Your task to perform on an android device: change text size in settings app Image 0: 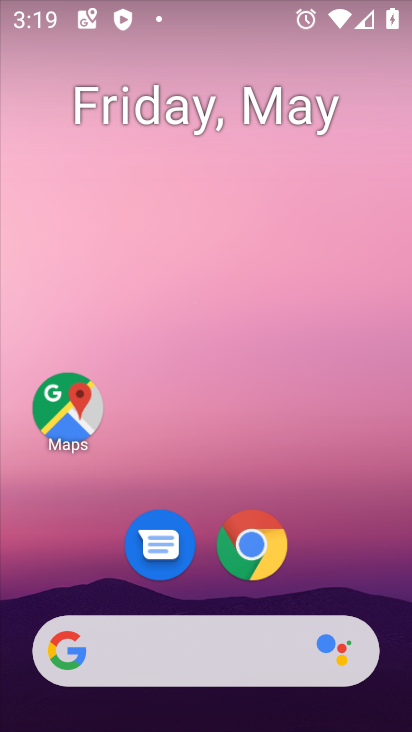
Step 0: drag from (320, 537) to (299, 18)
Your task to perform on an android device: change text size in settings app Image 1: 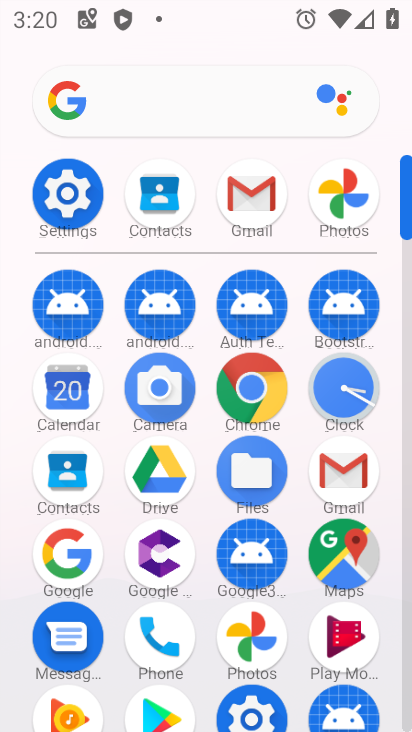
Step 1: click (68, 217)
Your task to perform on an android device: change text size in settings app Image 2: 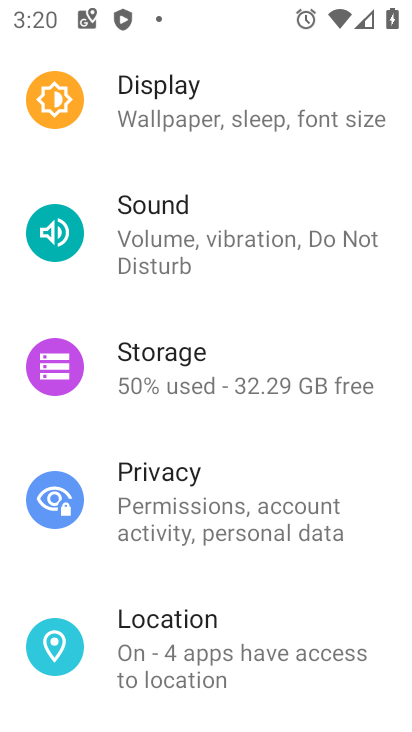
Step 2: click (268, 117)
Your task to perform on an android device: change text size in settings app Image 3: 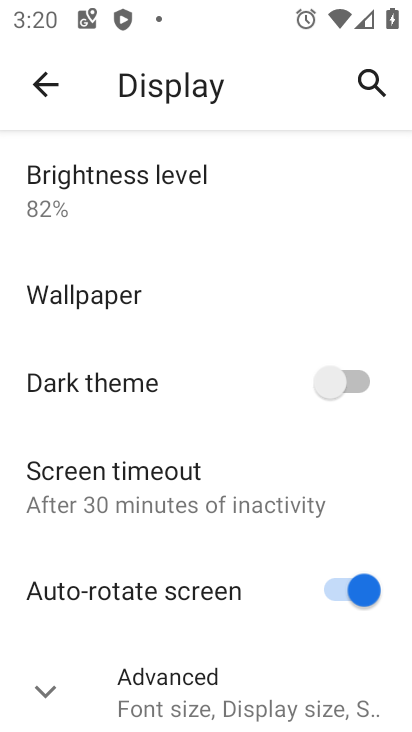
Step 3: click (221, 701)
Your task to perform on an android device: change text size in settings app Image 4: 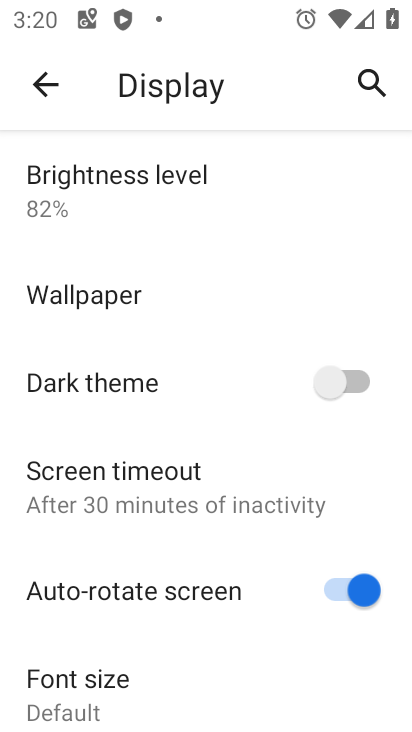
Step 4: click (92, 675)
Your task to perform on an android device: change text size in settings app Image 5: 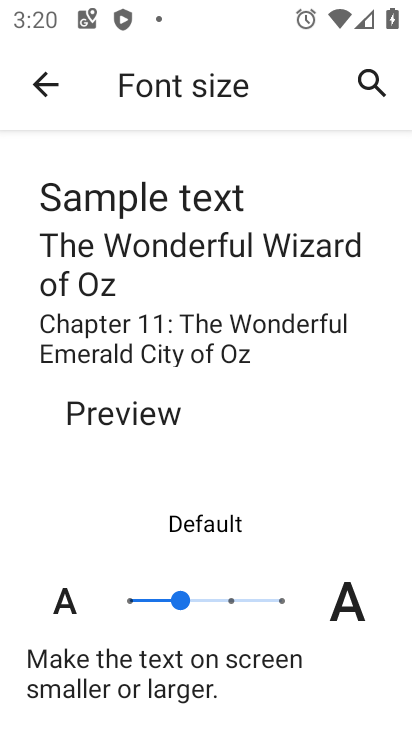
Step 5: click (131, 593)
Your task to perform on an android device: change text size in settings app Image 6: 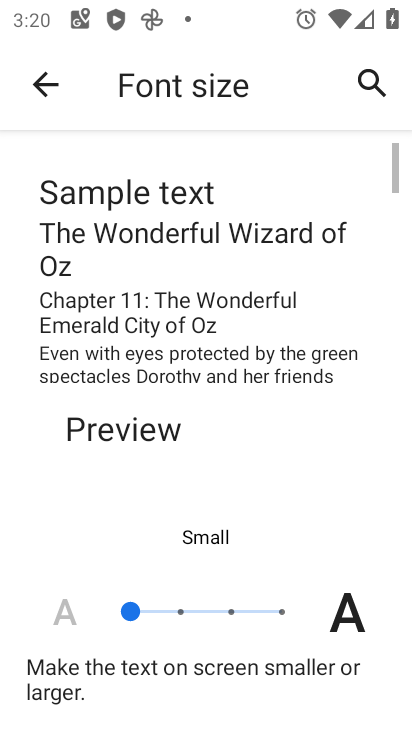
Step 6: task complete